Your task to perform on an android device: set the timer Image 0: 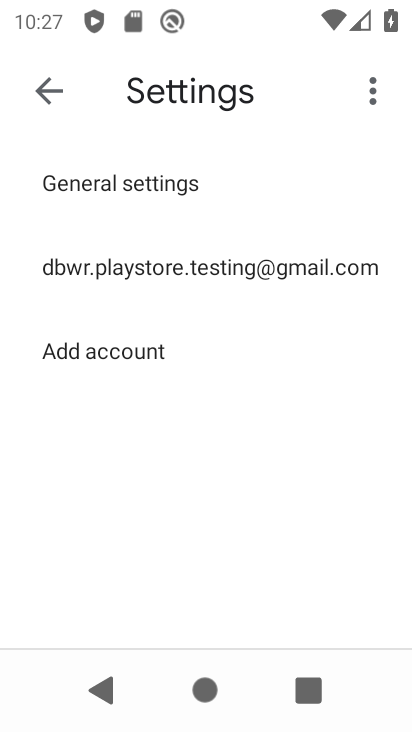
Step 0: press home button
Your task to perform on an android device: set the timer Image 1: 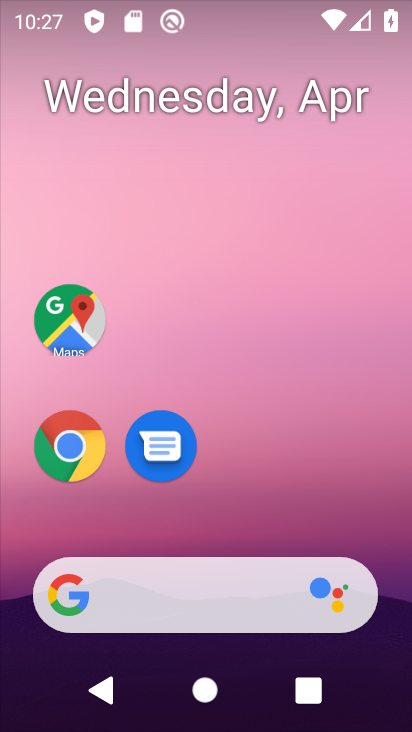
Step 1: drag from (217, 536) to (236, 7)
Your task to perform on an android device: set the timer Image 2: 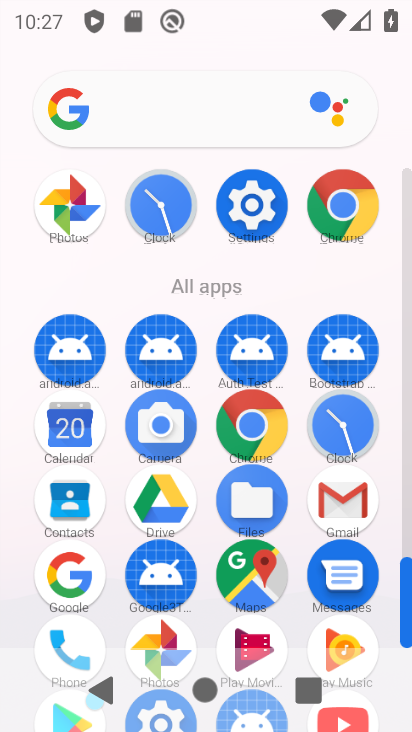
Step 2: click (350, 418)
Your task to perform on an android device: set the timer Image 3: 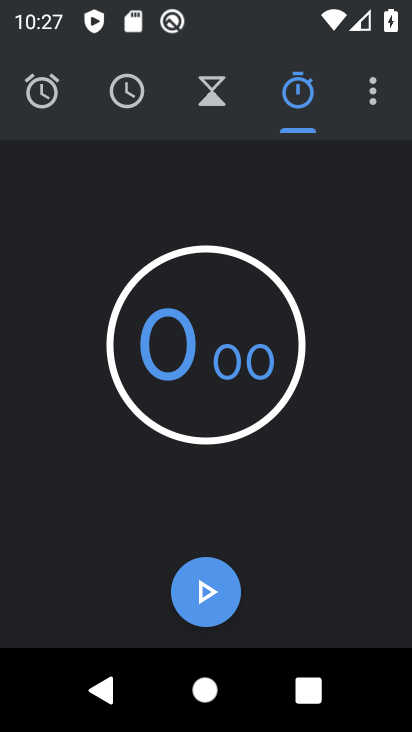
Step 3: click (211, 79)
Your task to perform on an android device: set the timer Image 4: 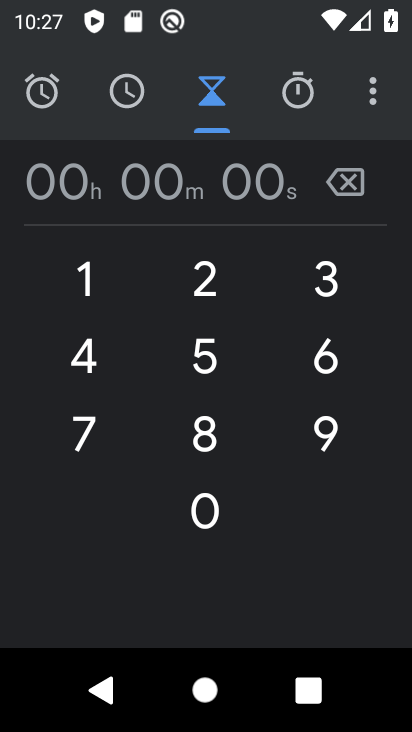
Step 4: click (201, 263)
Your task to perform on an android device: set the timer Image 5: 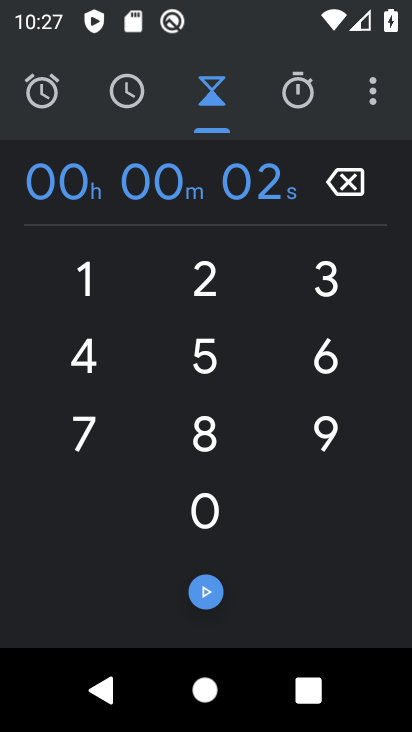
Step 5: click (216, 361)
Your task to perform on an android device: set the timer Image 6: 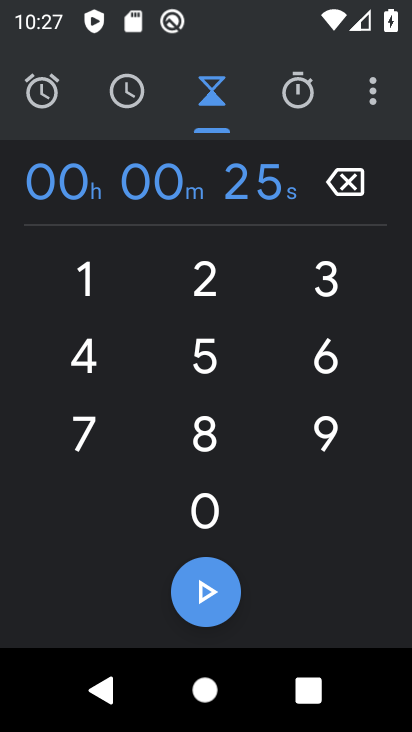
Step 6: click (222, 583)
Your task to perform on an android device: set the timer Image 7: 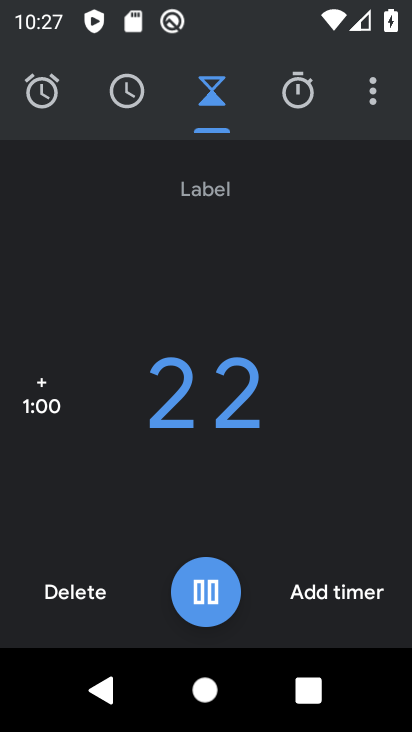
Step 7: task complete